Your task to perform on an android device: Open Google Maps and go to "Timeline" Image 0: 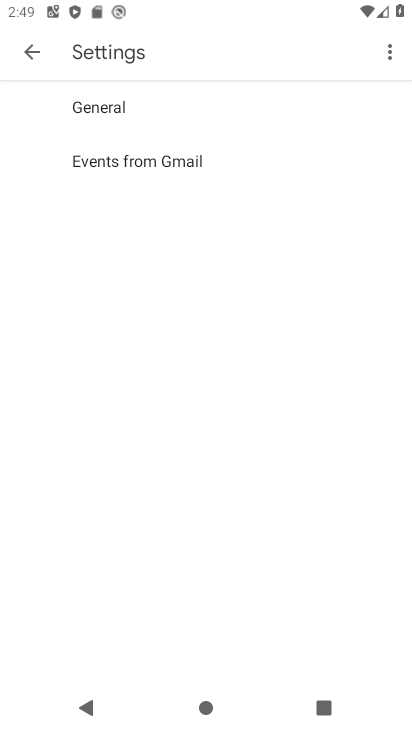
Step 0: press home button
Your task to perform on an android device: Open Google Maps and go to "Timeline" Image 1: 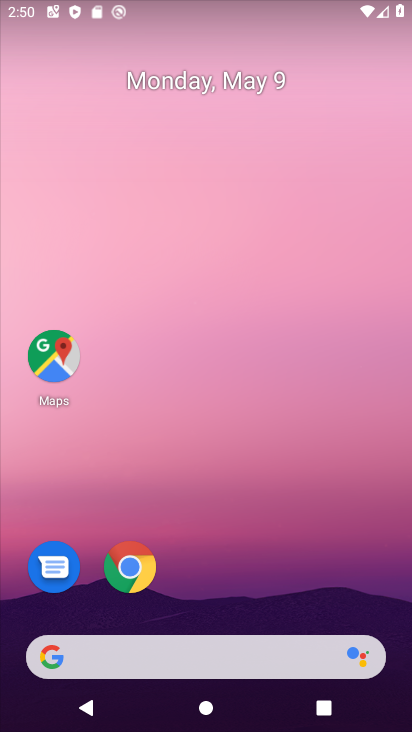
Step 1: click (50, 360)
Your task to perform on an android device: Open Google Maps and go to "Timeline" Image 2: 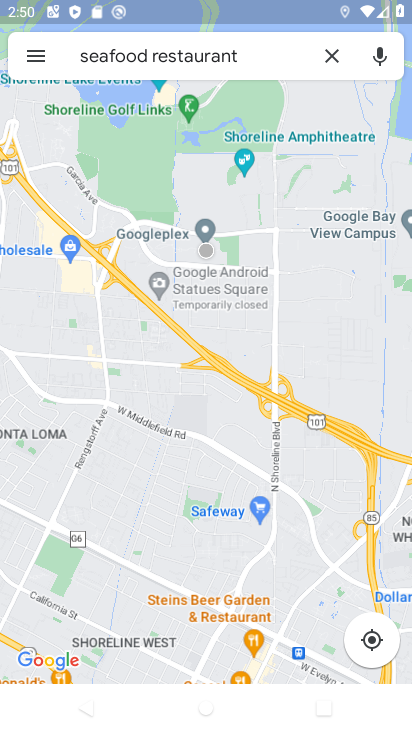
Step 2: click (37, 59)
Your task to perform on an android device: Open Google Maps and go to "Timeline" Image 3: 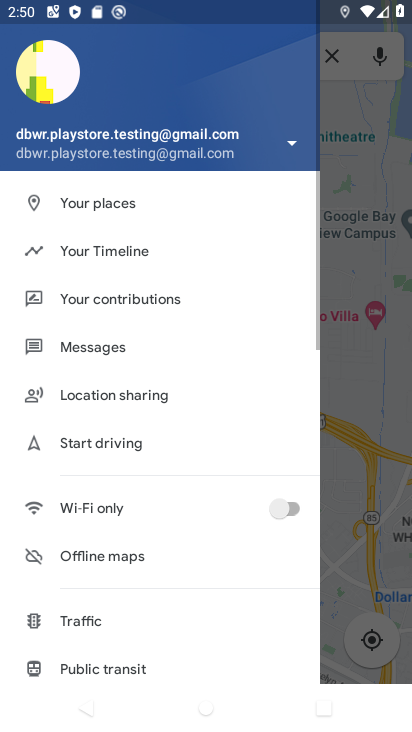
Step 3: click (116, 255)
Your task to perform on an android device: Open Google Maps and go to "Timeline" Image 4: 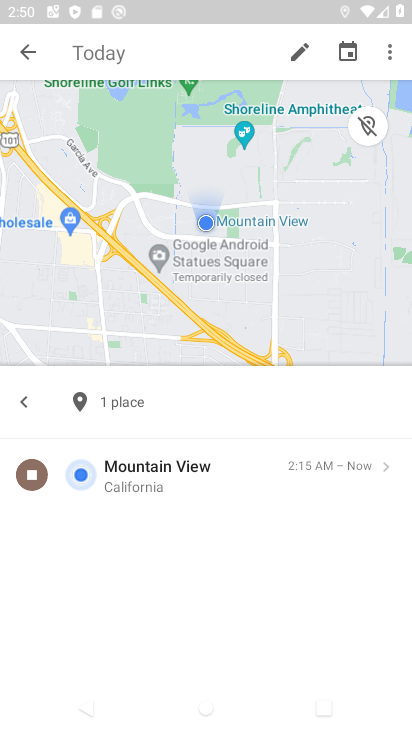
Step 4: task complete